Your task to perform on an android device: Empty the shopping cart on walmart.com. Image 0: 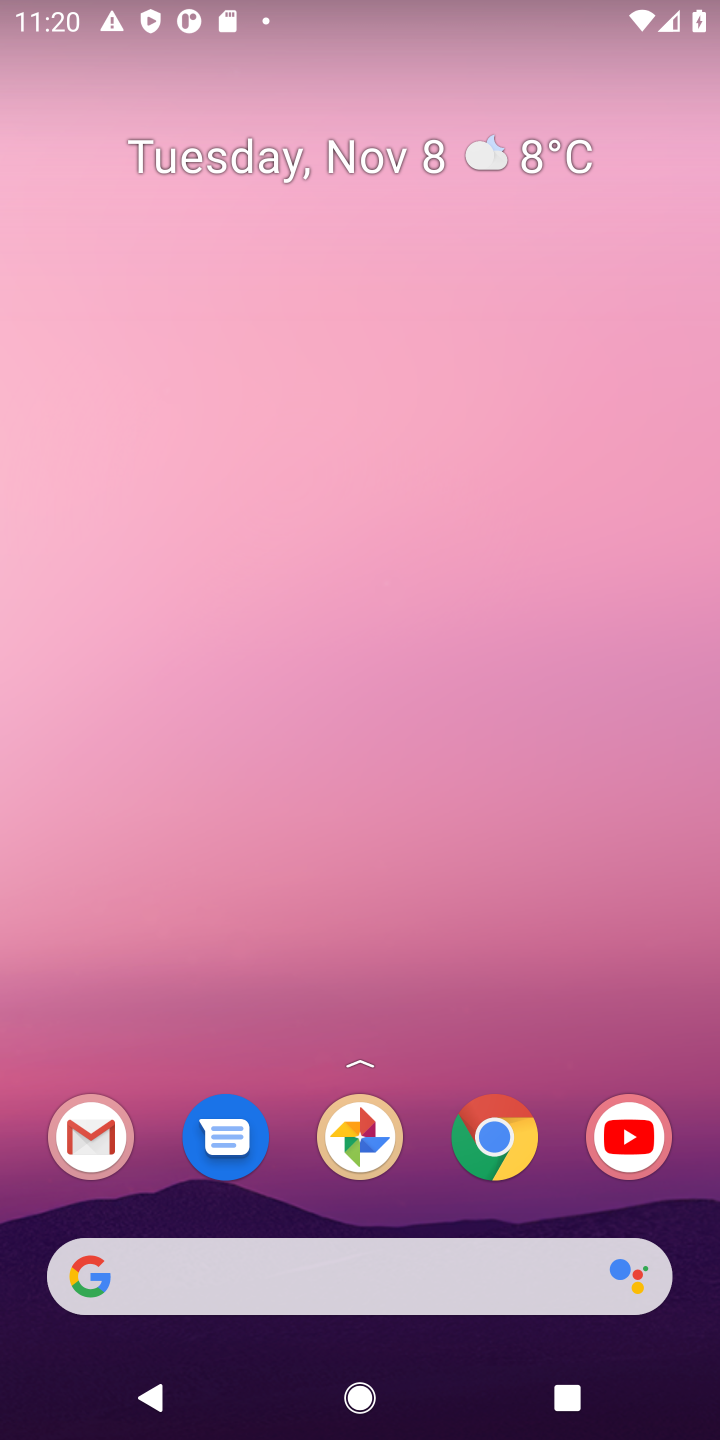
Step 0: click (512, 1128)
Your task to perform on an android device: Empty the shopping cart on walmart.com. Image 1: 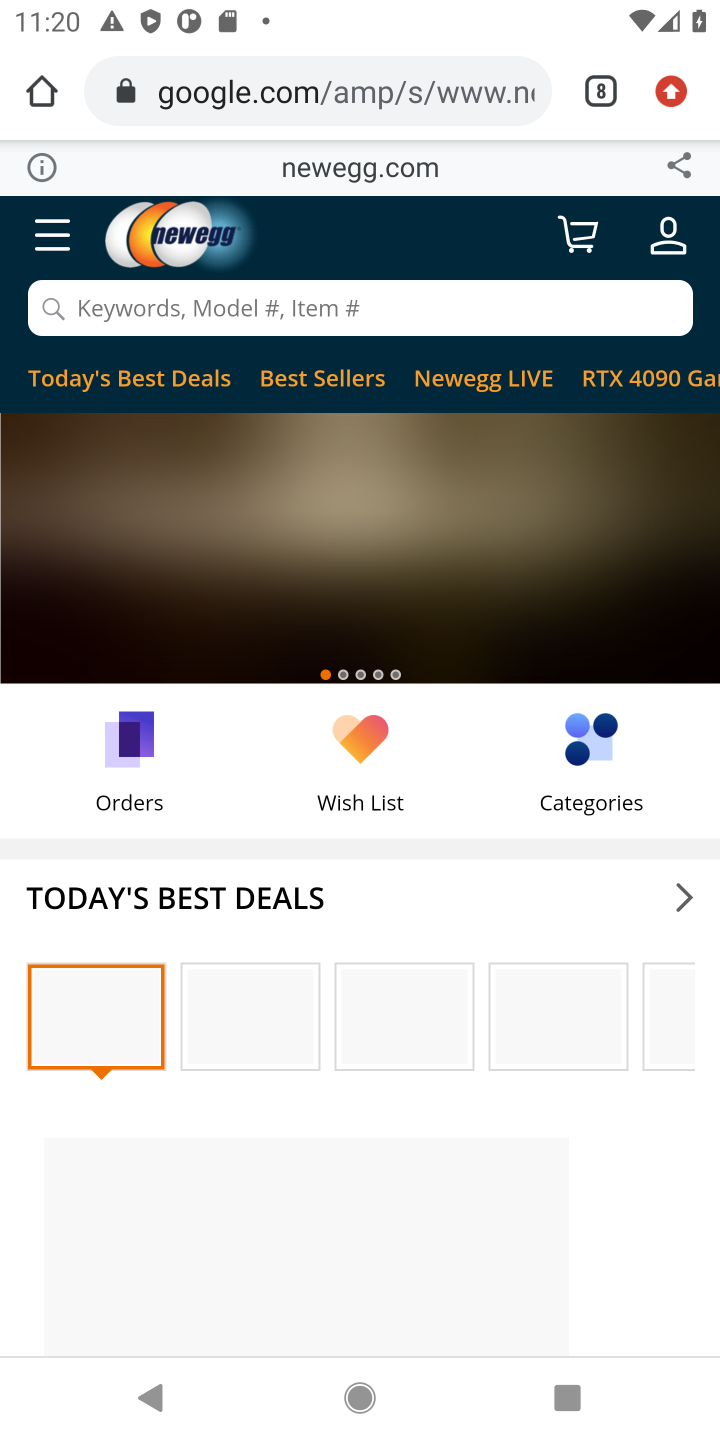
Step 1: click (604, 82)
Your task to perform on an android device: Empty the shopping cart on walmart.com. Image 2: 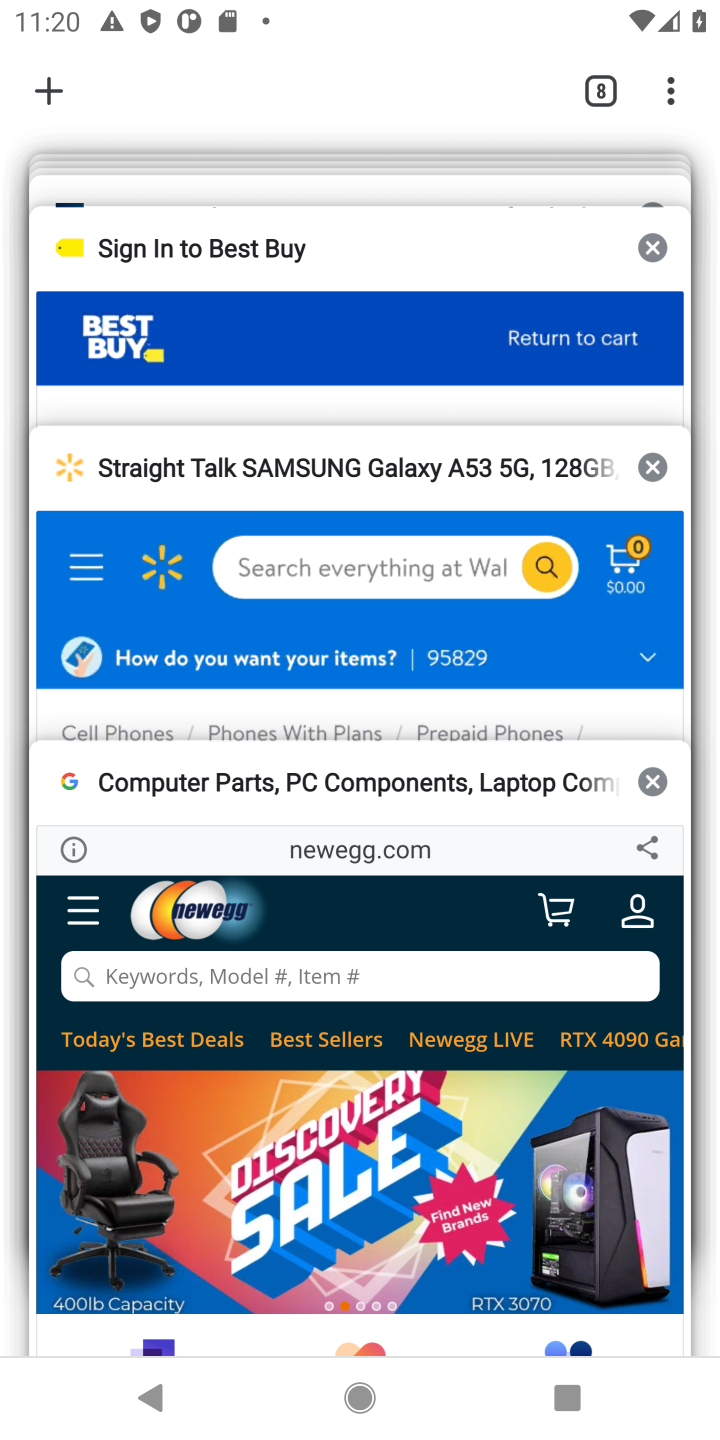
Step 2: click (169, 586)
Your task to perform on an android device: Empty the shopping cart on walmart.com. Image 3: 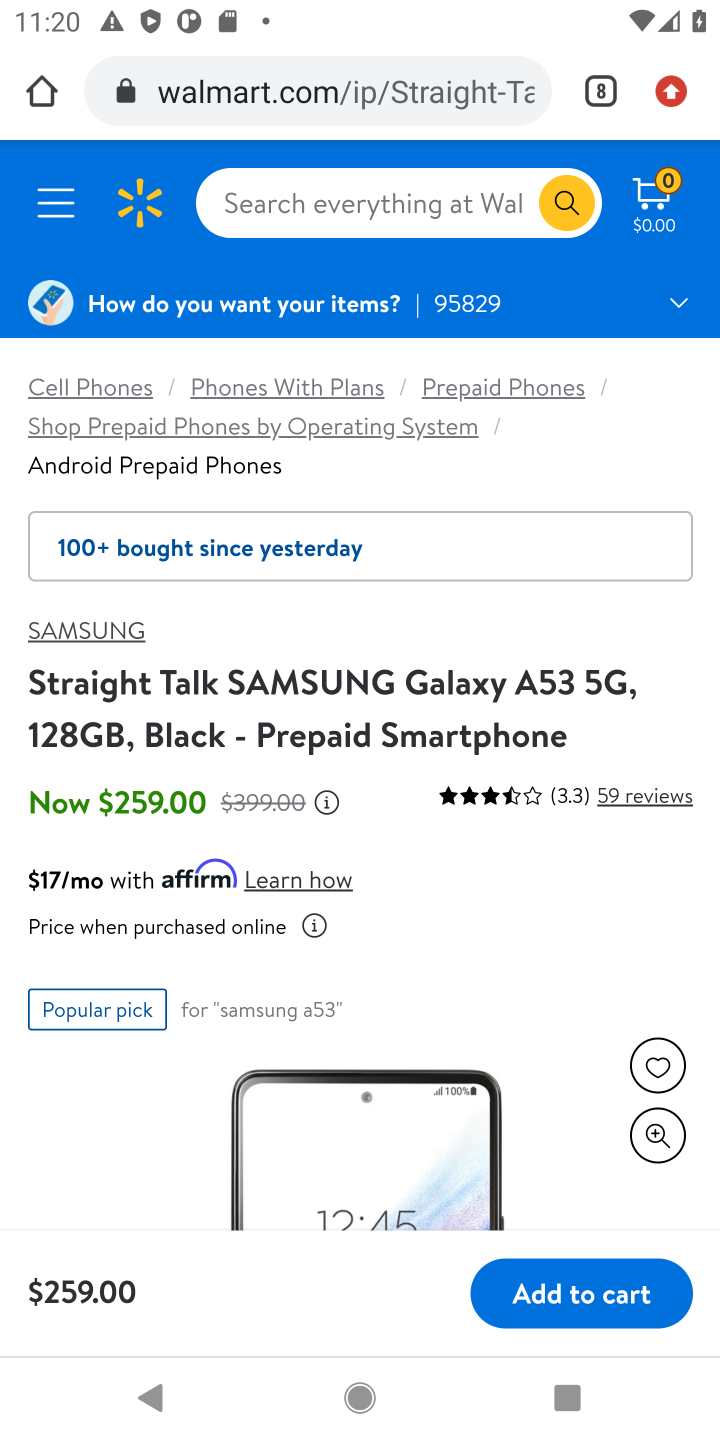
Step 3: task complete